Your task to perform on an android device: delete browsing data in the chrome app Image 0: 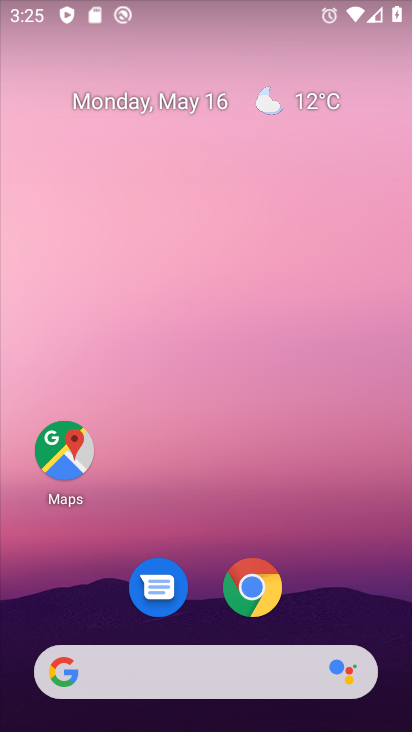
Step 0: drag from (398, 621) to (378, 148)
Your task to perform on an android device: delete browsing data in the chrome app Image 1: 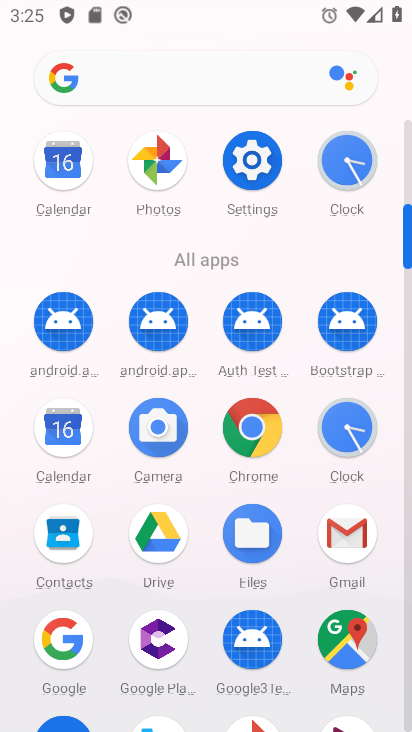
Step 1: click (235, 414)
Your task to perform on an android device: delete browsing data in the chrome app Image 2: 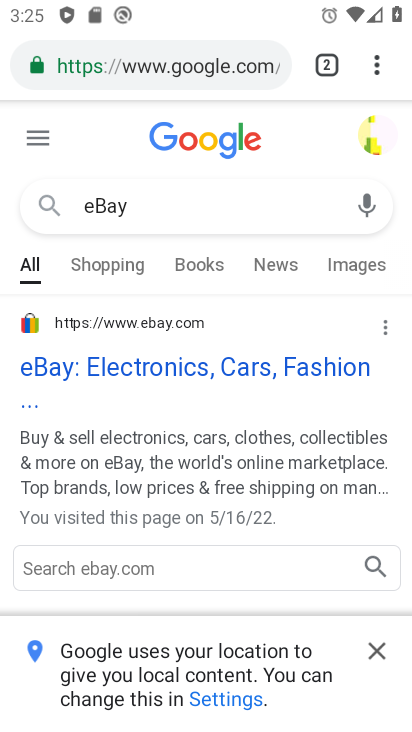
Step 2: click (380, 59)
Your task to perform on an android device: delete browsing data in the chrome app Image 3: 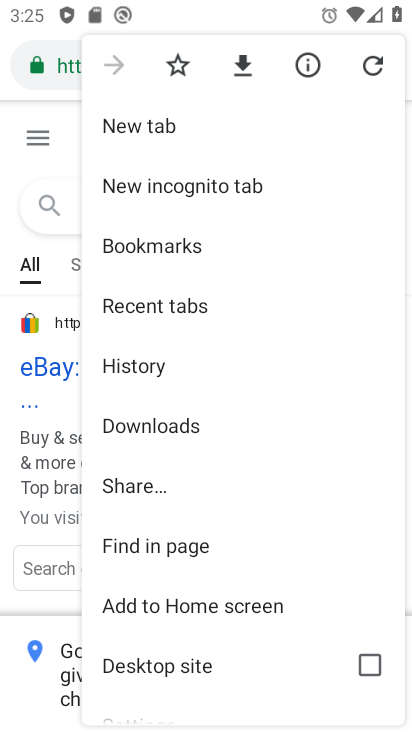
Step 3: click (135, 367)
Your task to perform on an android device: delete browsing data in the chrome app Image 4: 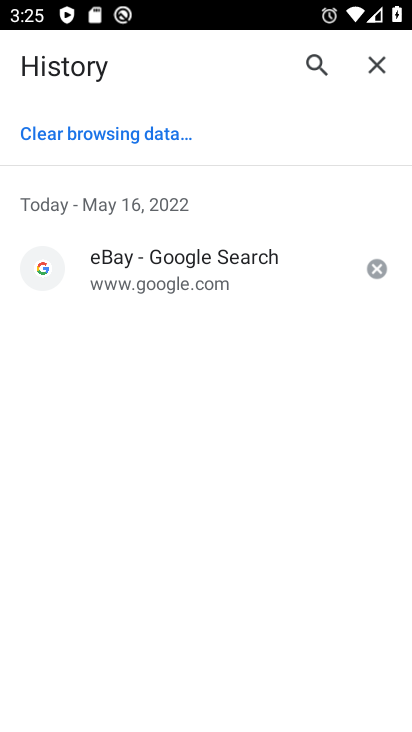
Step 4: click (141, 133)
Your task to perform on an android device: delete browsing data in the chrome app Image 5: 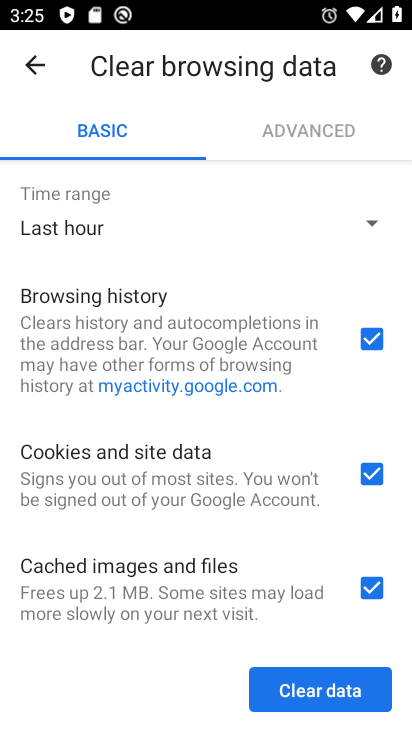
Step 5: click (327, 689)
Your task to perform on an android device: delete browsing data in the chrome app Image 6: 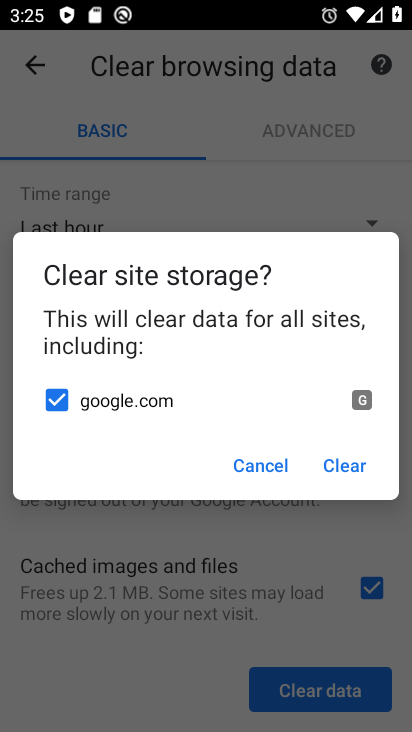
Step 6: click (343, 474)
Your task to perform on an android device: delete browsing data in the chrome app Image 7: 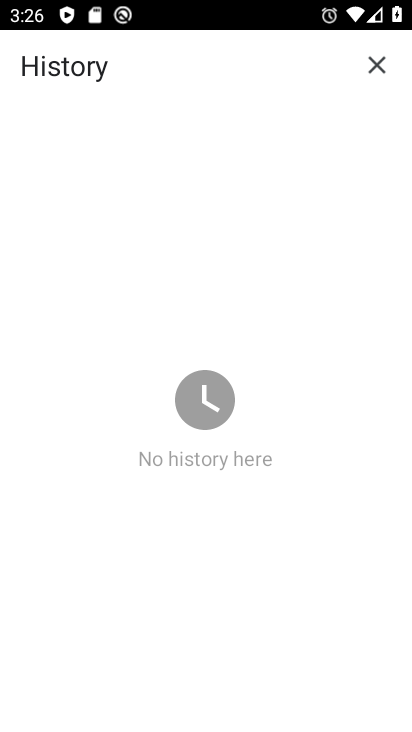
Step 7: task complete